Your task to perform on an android device: turn off airplane mode Image 0: 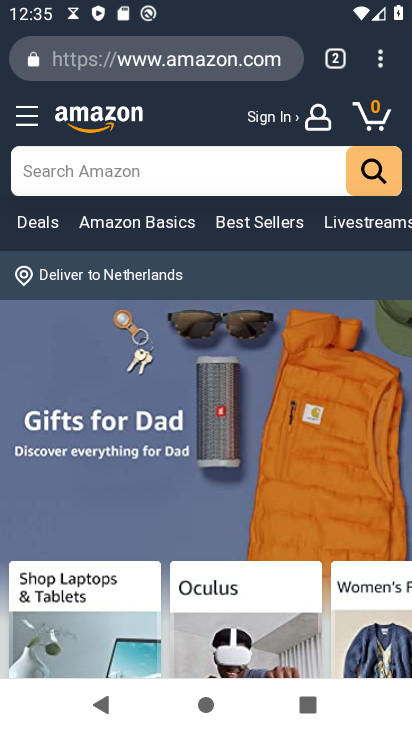
Step 0: press back button
Your task to perform on an android device: turn off airplane mode Image 1: 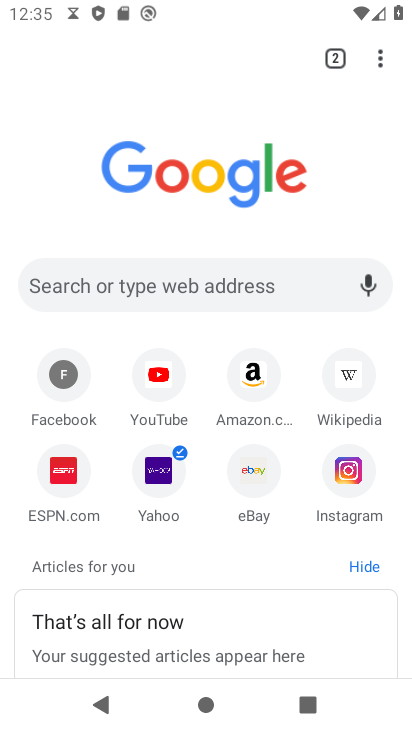
Step 1: task complete